Your task to perform on an android device: When is my next meeting? Image 0: 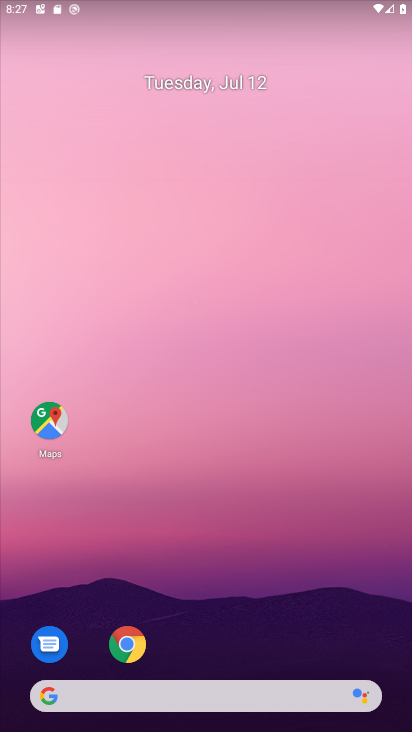
Step 0: drag from (274, 590) to (169, 34)
Your task to perform on an android device: When is my next meeting? Image 1: 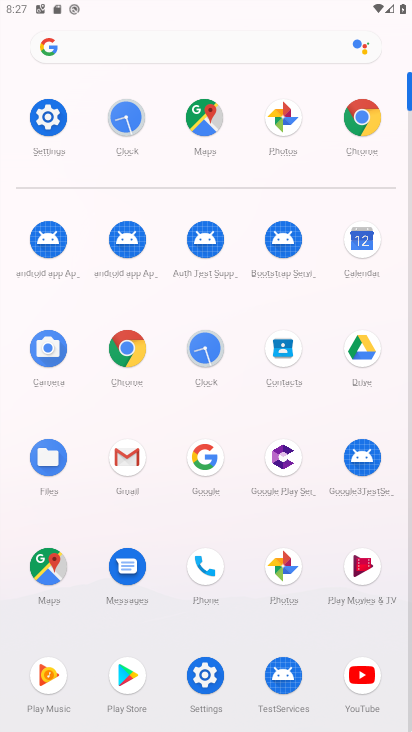
Step 1: click (369, 245)
Your task to perform on an android device: When is my next meeting? Image 2: 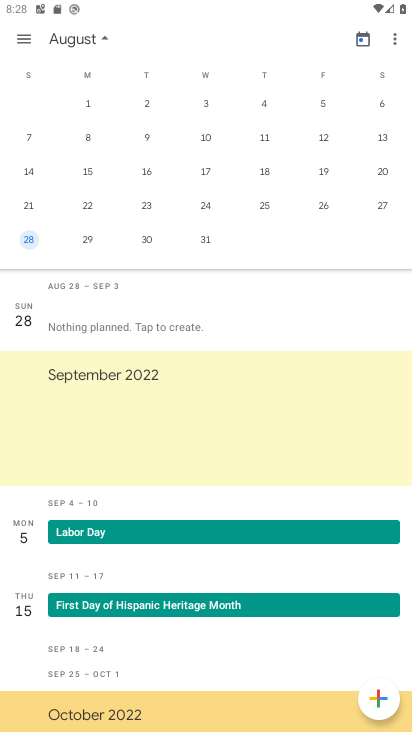
Step 2: task complete